Your task to perform on an android device: Open settings on Google Maps Image 0: 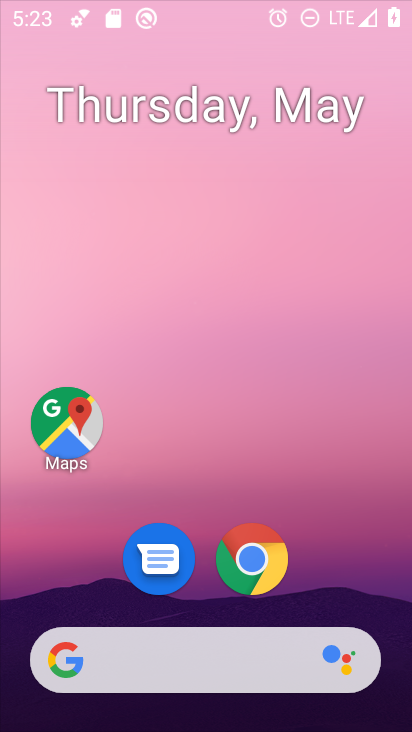
Step 0: click (265, 556)
Your task to perform on an android device: Open settings on Google Maps Image 1: 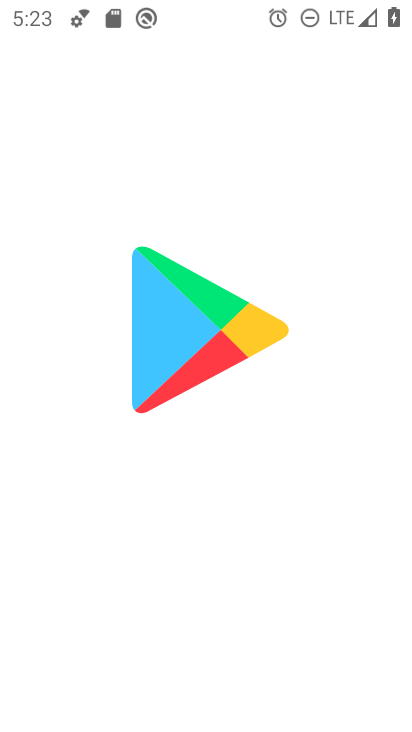
Step 1: press home button
Your task to perform on an android device: Open settings on Google Maps Image 2: 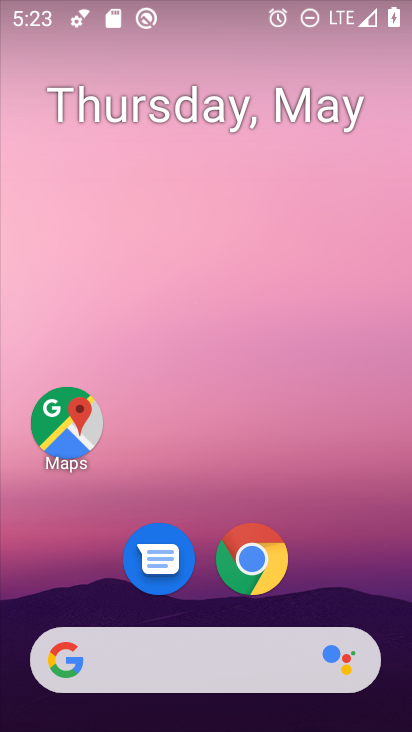
Step 2: click (69, 404)
Your task to perform on an android device: Open settings on Google Maps Image 3: 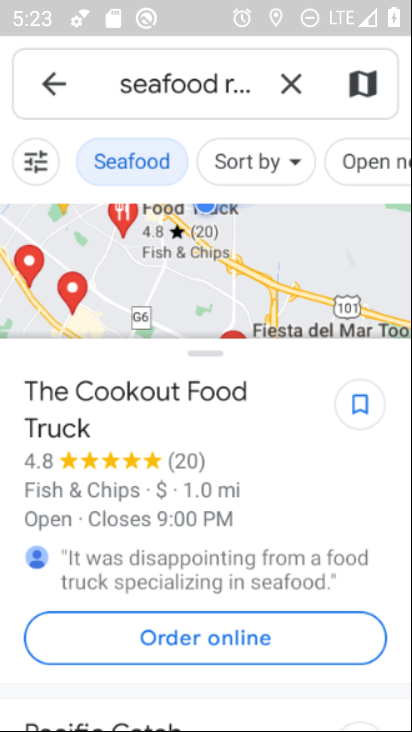
Step 3: click (50, 70)
Your task to perform on an android device: Open settings on Google Maps Image 4: 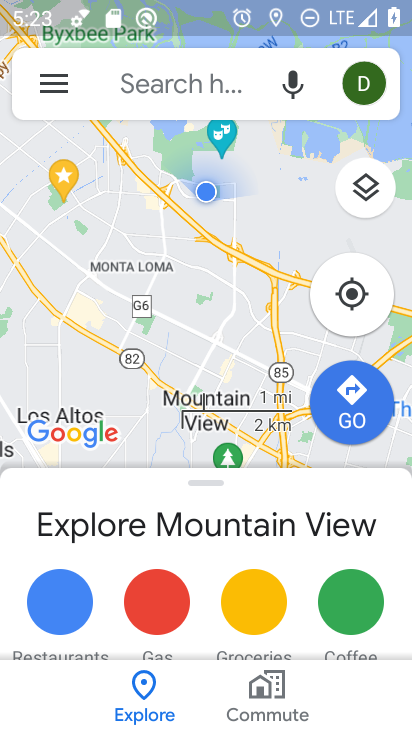
Step 4: click (60, 80)
Your task to perform on an android device: Open settings on Google Maps Image 5: 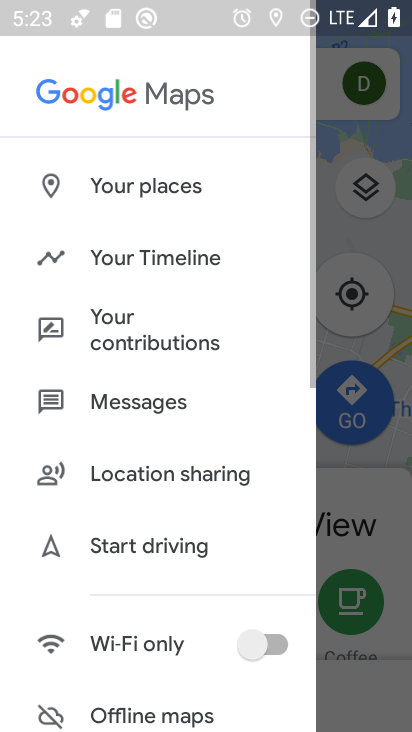
Step 5: drag from (165, 632) to (195, 21)
Your task to perform on an android device: Open settings on Google Maps Image 6: 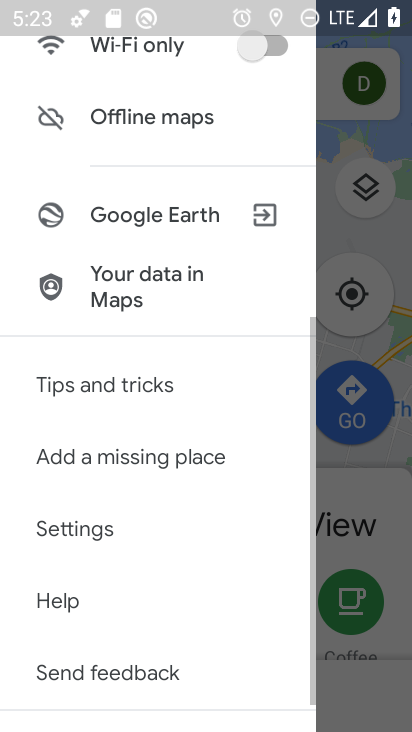
Step 6: click (142, 524)
Your task to perform on an android device: Open settings on Google Maps Image 7: 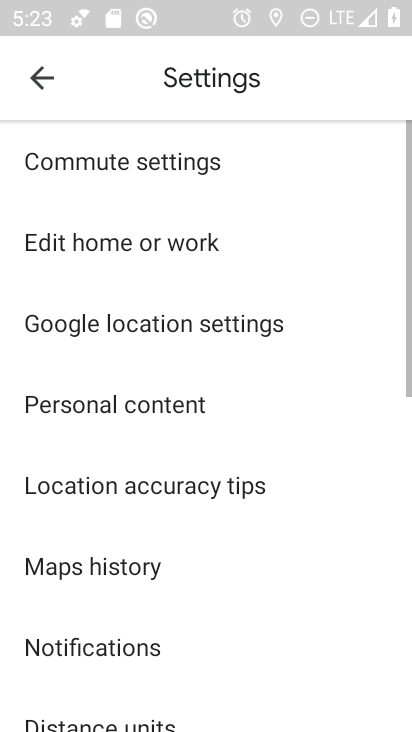
Step 7: task complete